Your task to perform on an android device: set default search engine in the chrome app Image 0: 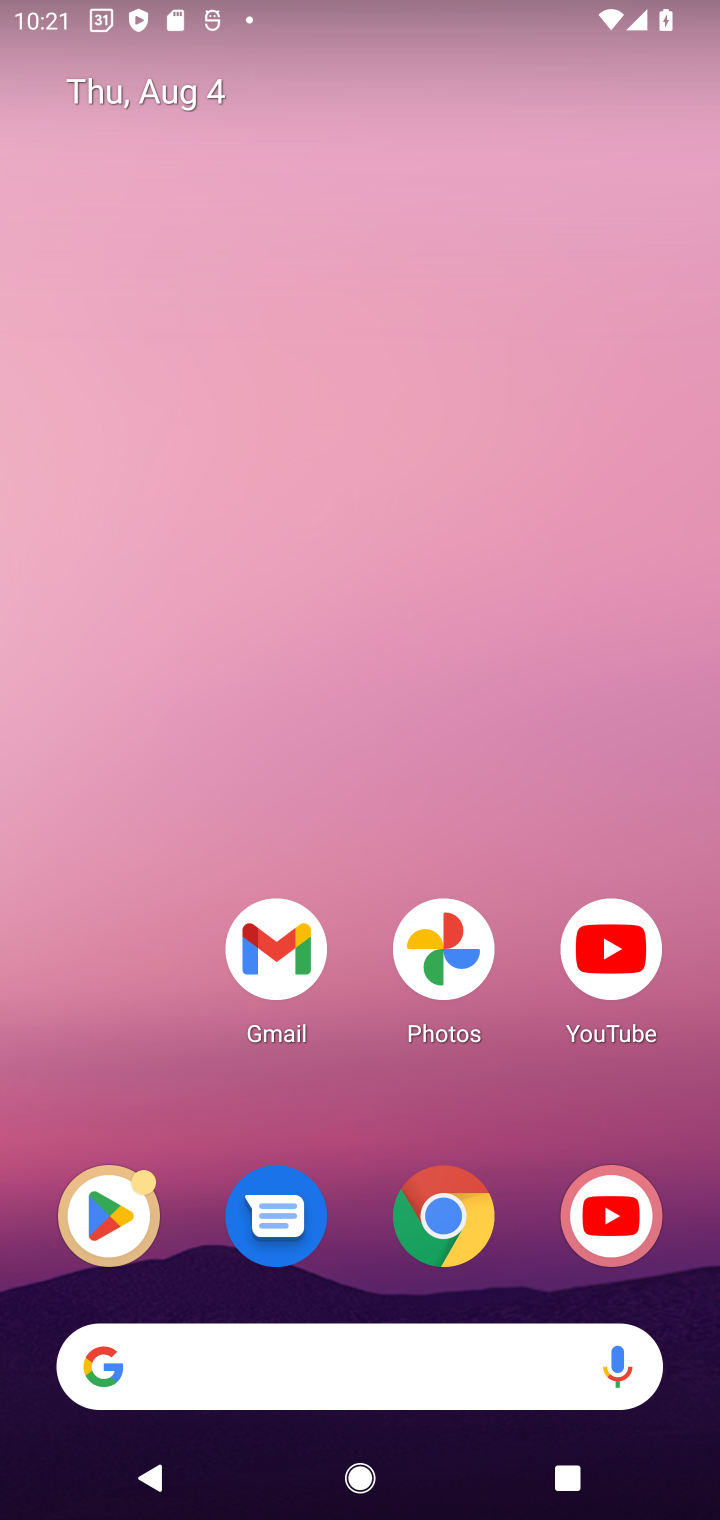
Step 0: press home button
Your task to perform on an android device: set default search engine in the chrome app Image 1: 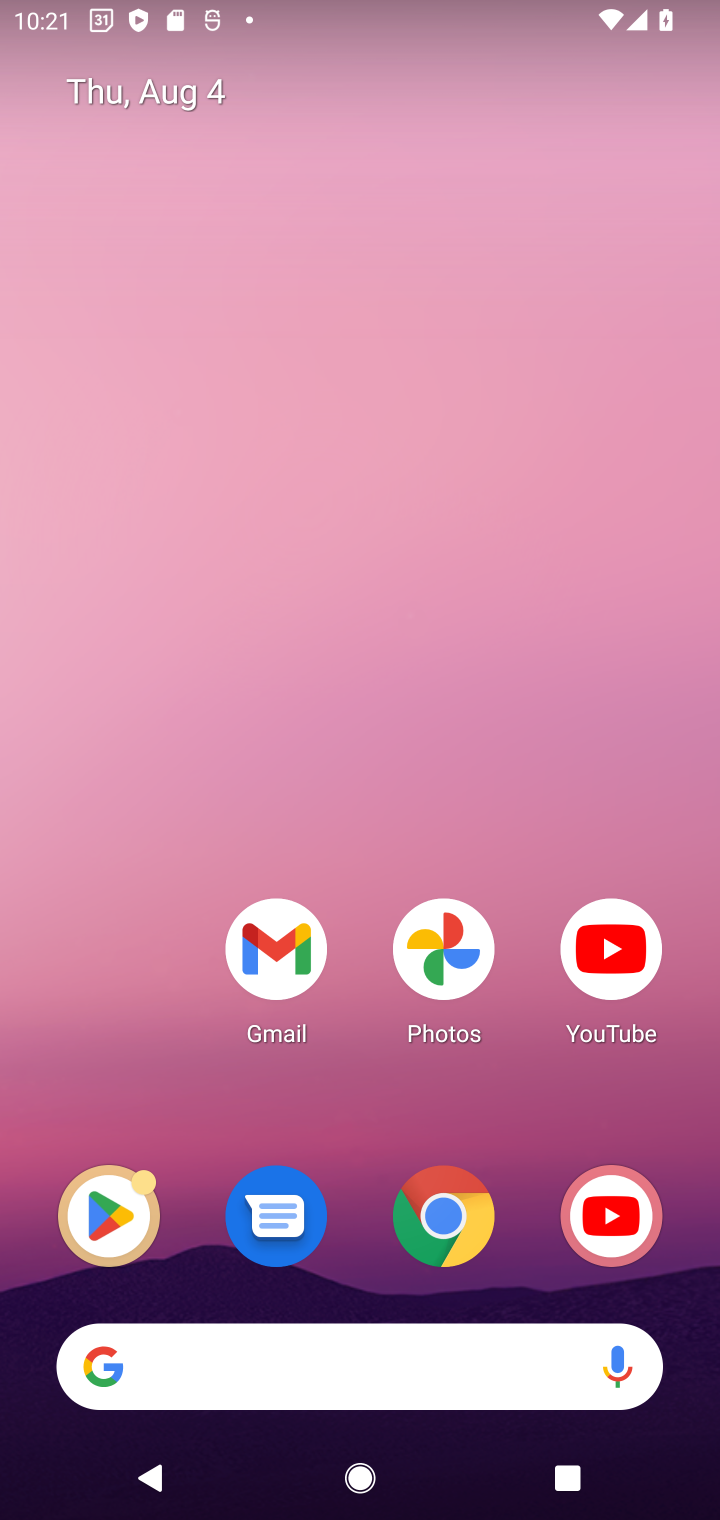
Step 1: click (436, 1219)
Your task to perform on an android device: set default search engine in the chrome app Image 2: 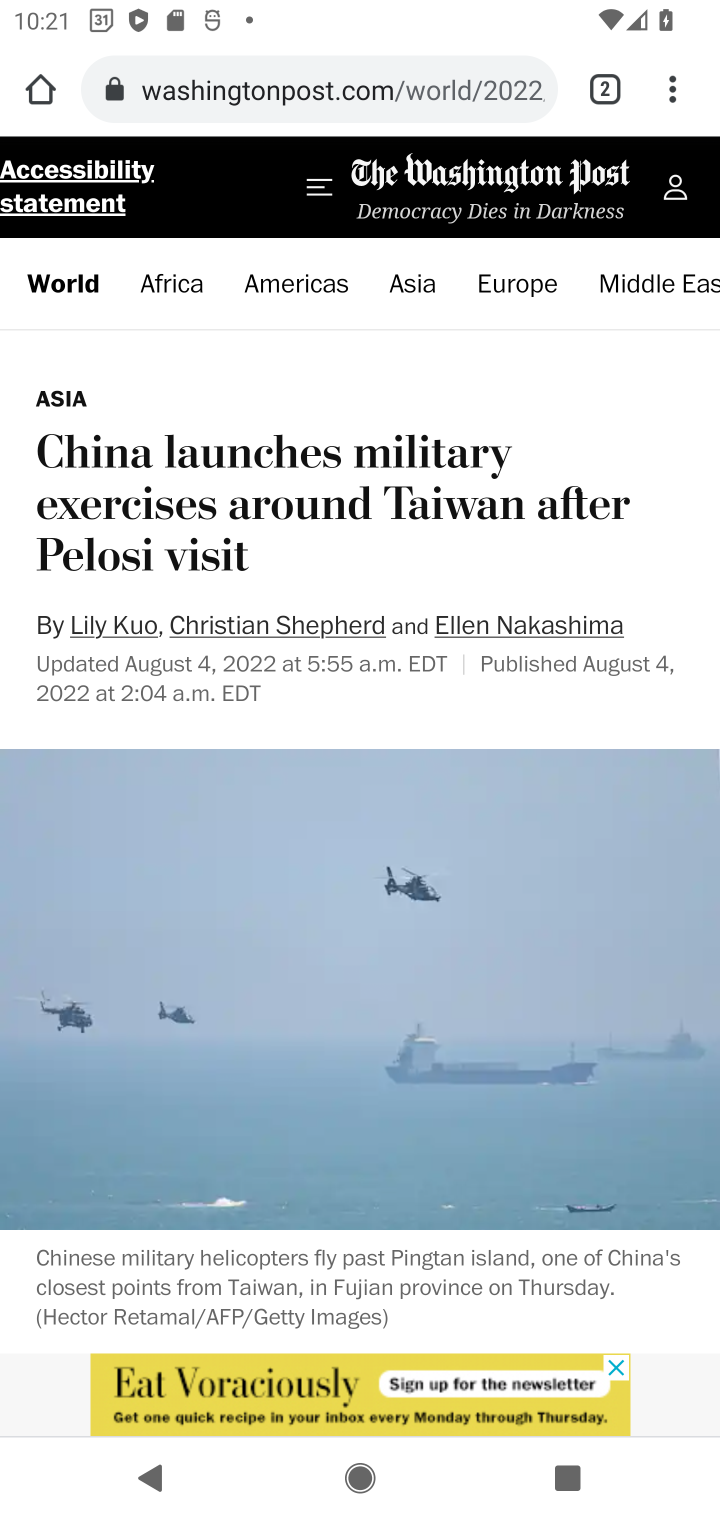
Step 2: click (675, 98)
Your task to perform on an android device: set default search engine in the chrome app Image 3: 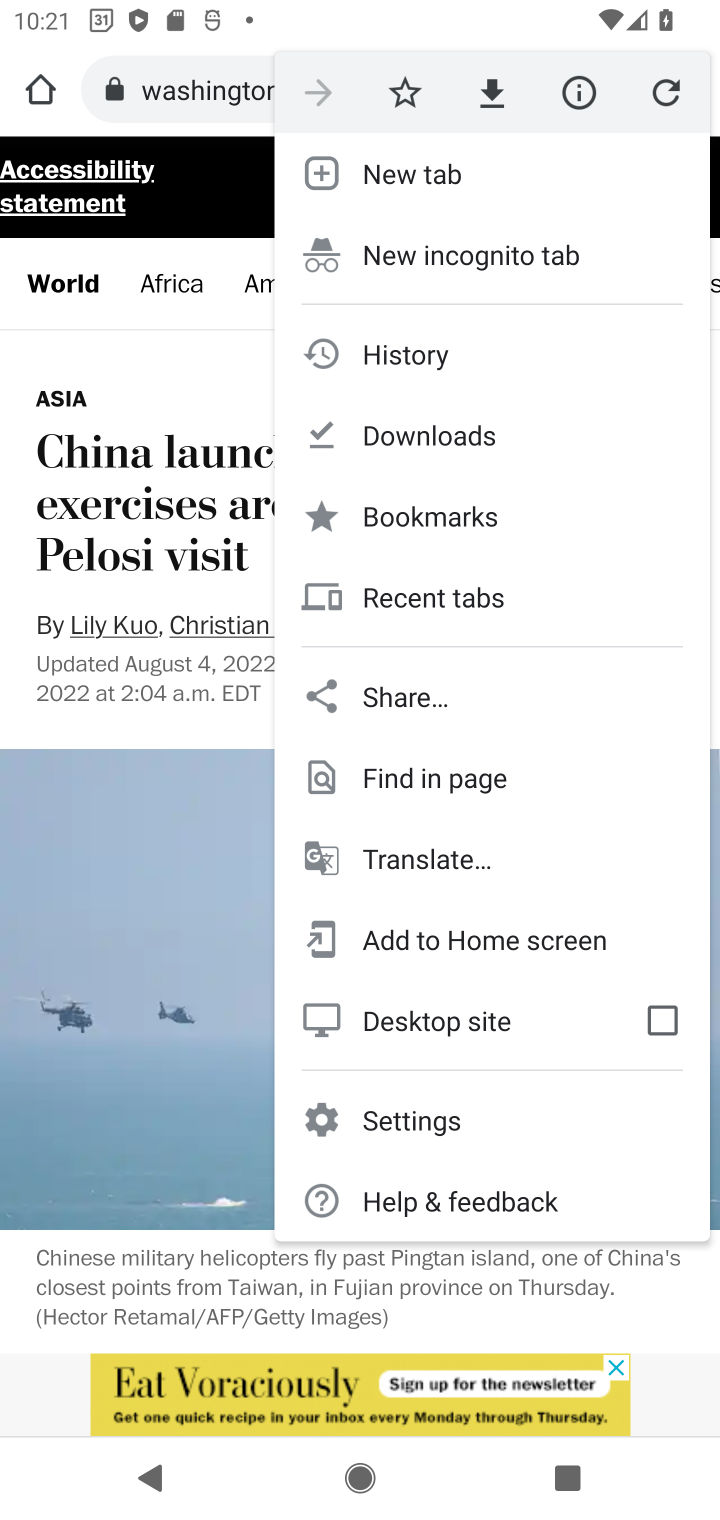
Step 3: click (419, 1103)
Your task to perform on an android device: set default search engine in the chrome app Image 4: 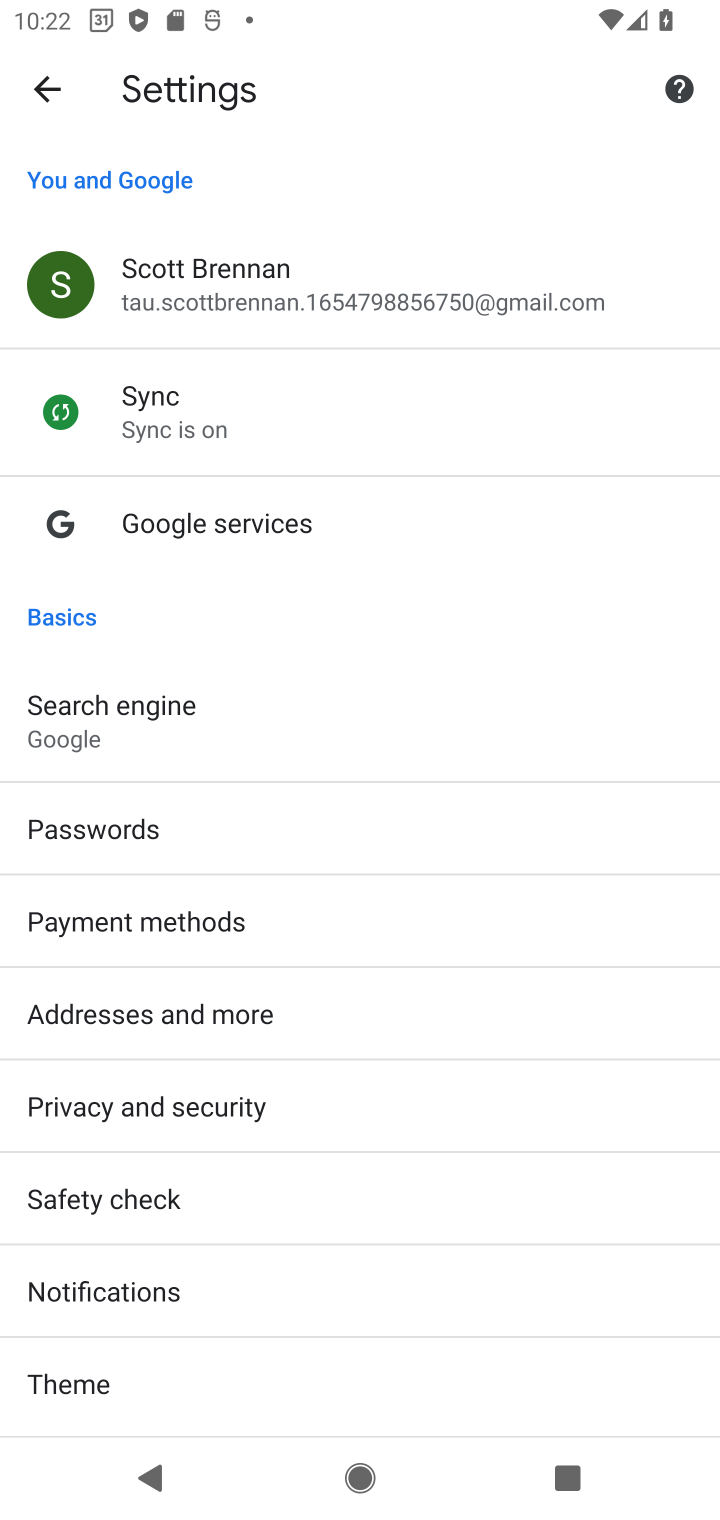
Step 4: click (153, 725)
Your task to perform on an android device: set default search engine in the chrome app Image 5: 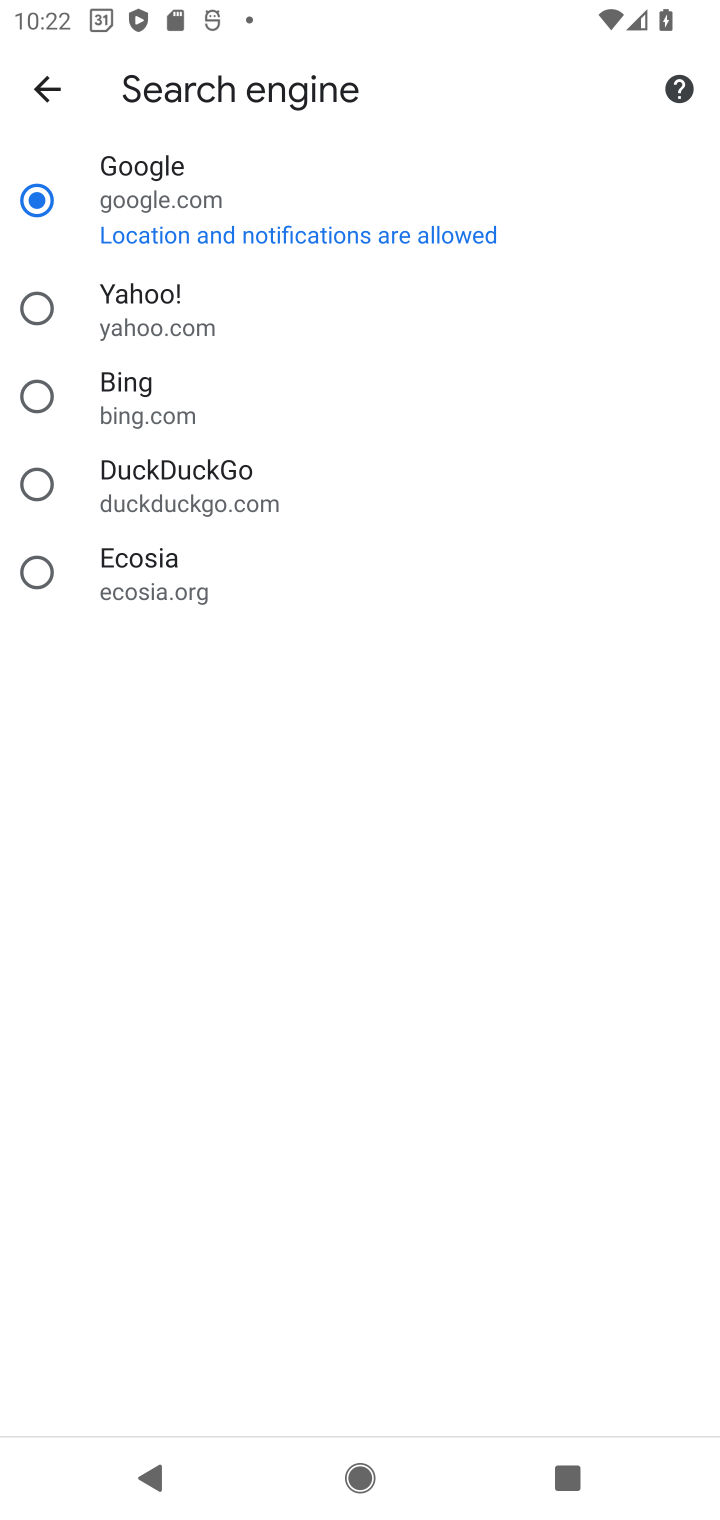
Step 5: click (48, 197)
Your task to perform on an android device: set default search engine in the chrome app Image 6: 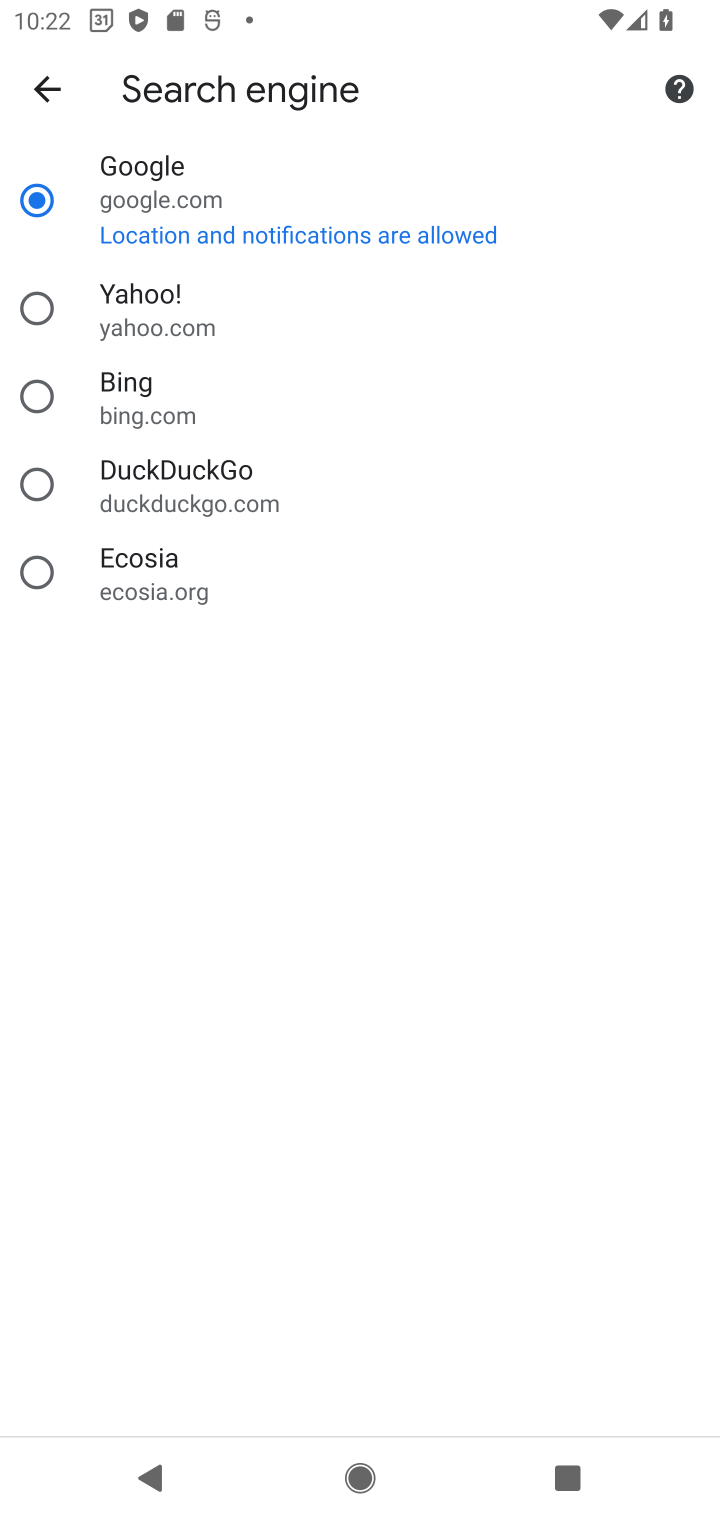
Step 6: task complete